Your task to perform on an android device: Open privacy settings Image 0: 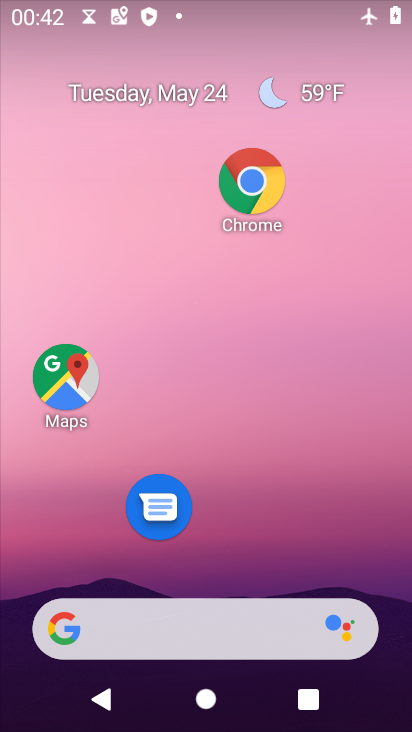
Step 0: drag from (276, 525) to (317, 242)
Your task to perform on an android device: Open privacy settings Image 1: 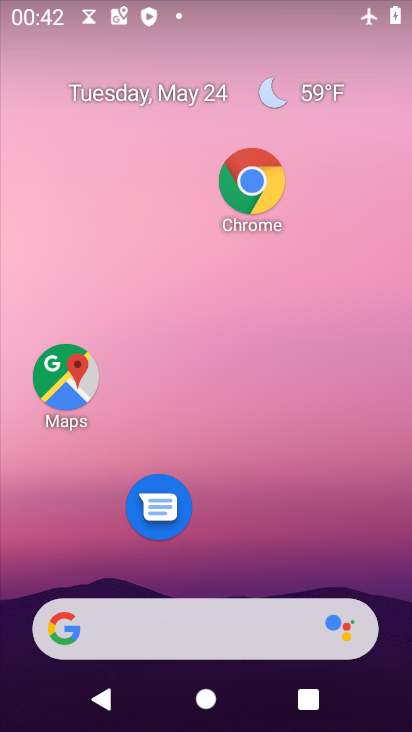
Step 1: drag from (306, 393) to (299, 274)
Your task to perform on an android device: Open privacy settings Image 2: 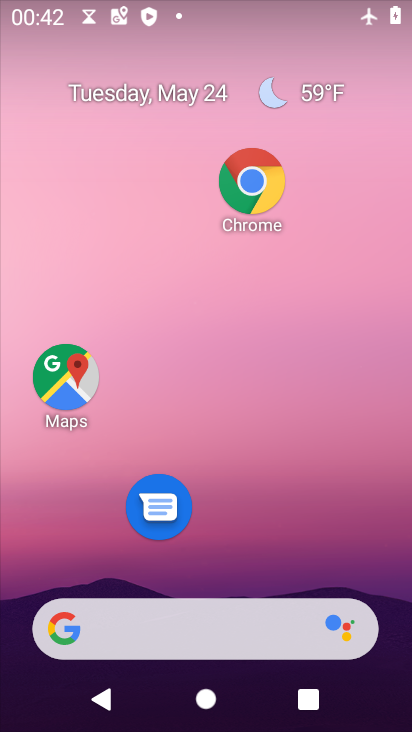
Step 2: drag from (237, 578) to (255, 268)
Your task to perform on an android device: Open privacy settings Image 3: 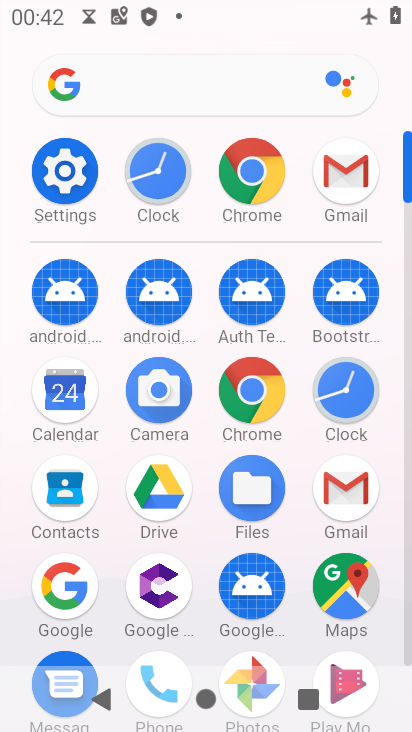
Step 3: click (62, 166)
Your task to perform on an android device: Open privacy settings Image 4: 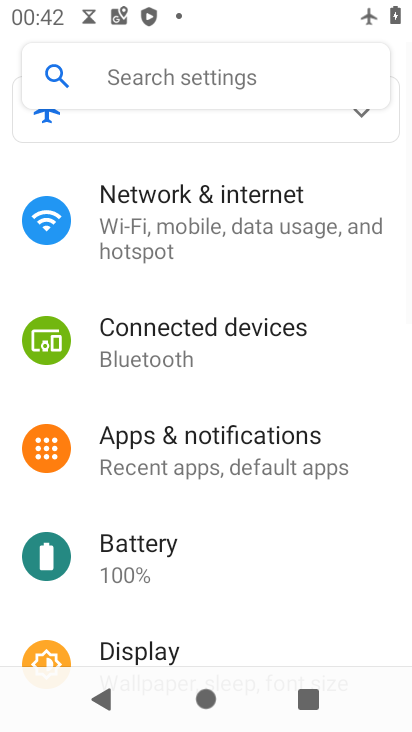
Step 4: drag from (190, 550) to (236, 222)
Your task to perform on an android device: Open privacy settings Image 5: 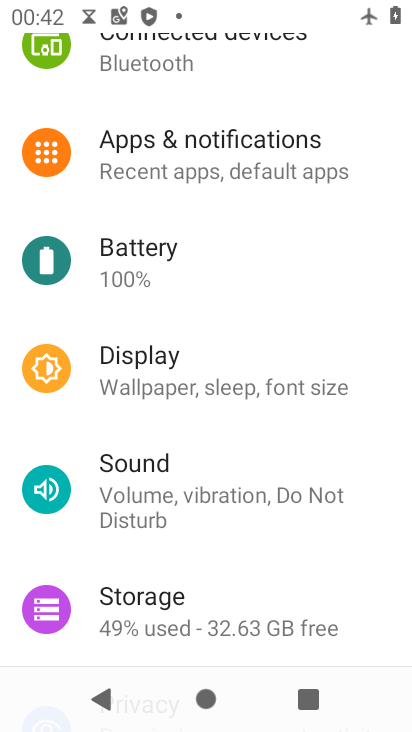
Step 5: drag from (196, 538) to (237, 201)
Your task to perform on an android device: Open privacy settings Image 6: 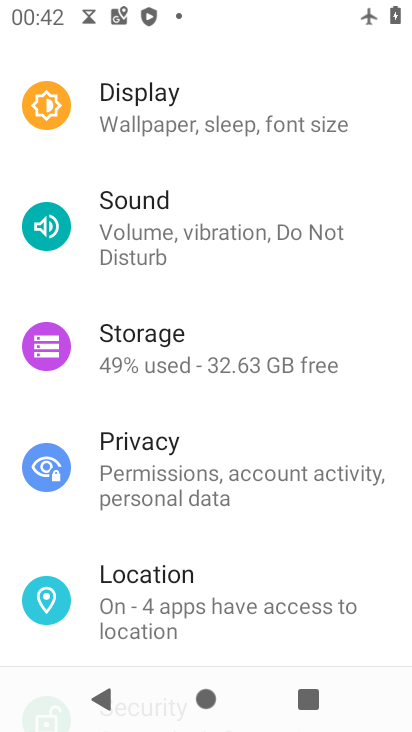
Step 6: click (185, 460)
Your task to perform on an android device: Open privacy settings Image 7: 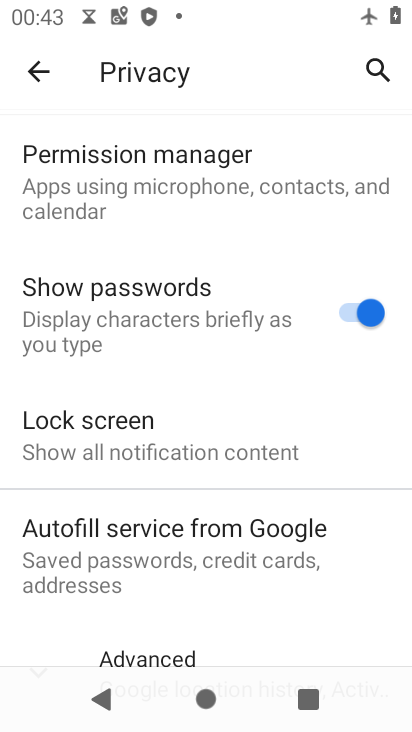
Step 7: task complete